Your task to perform on an android device: turn off wifi Image 0: 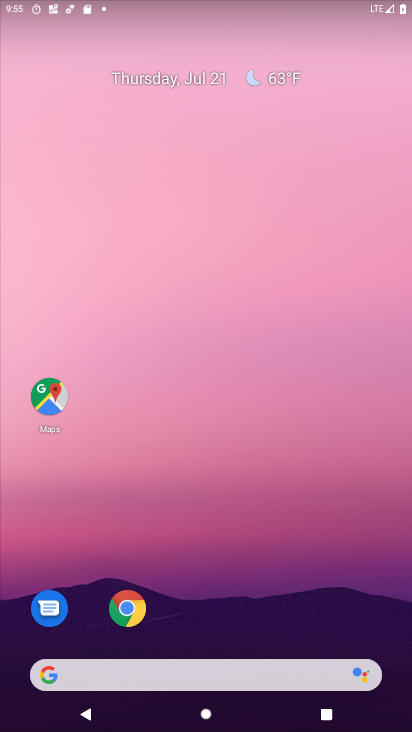
Step 0: drag from (185, 665) to (259, 134)
Your task to perform on an android device: turn off wifi Image 1: 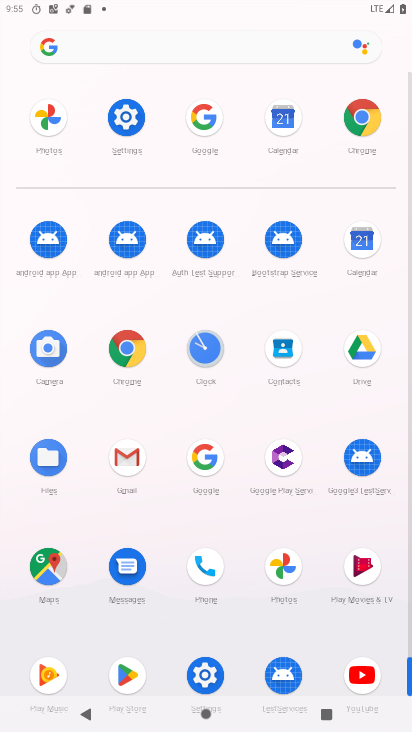
Step 1: click (121, 135)
Your task to perform on an android device: turn off wifi Image 2: 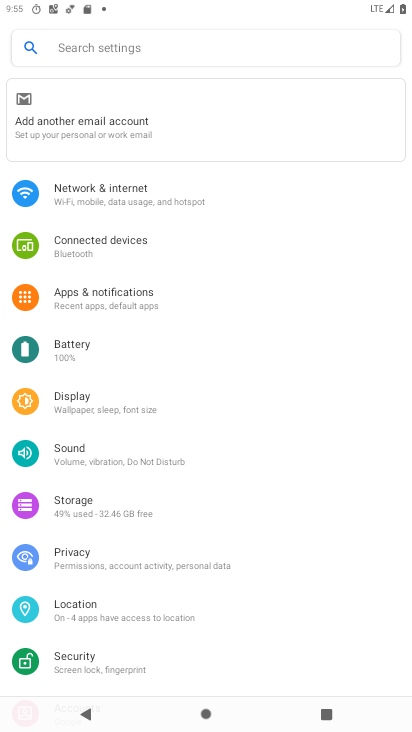
Step 2: click (117, 196)
Your task to perform on an android device: turn off wifi Image 3: 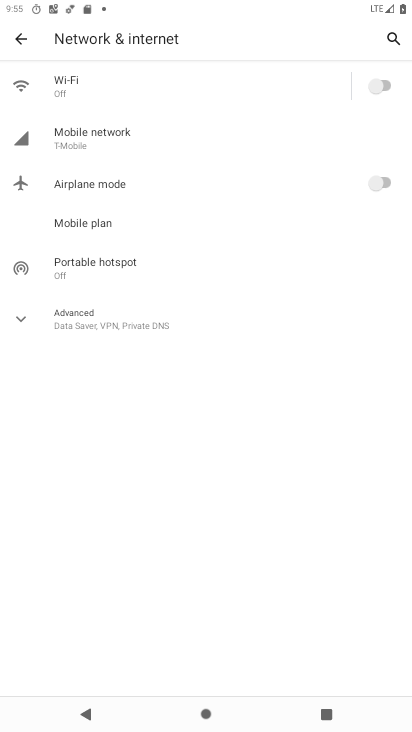
Step 3: task complete